Your task to perform on an android device: Open accessibility settings Image 0: 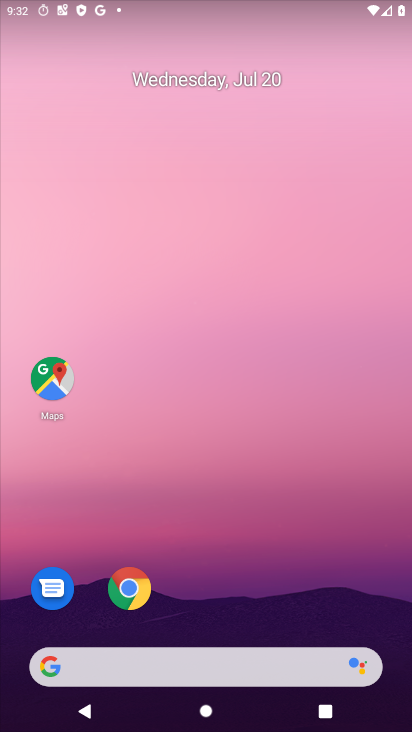
Step 0: drag from (224, 683) to (197, 39)
Your task to perform on an android device: Open accessibility settings Image 1: 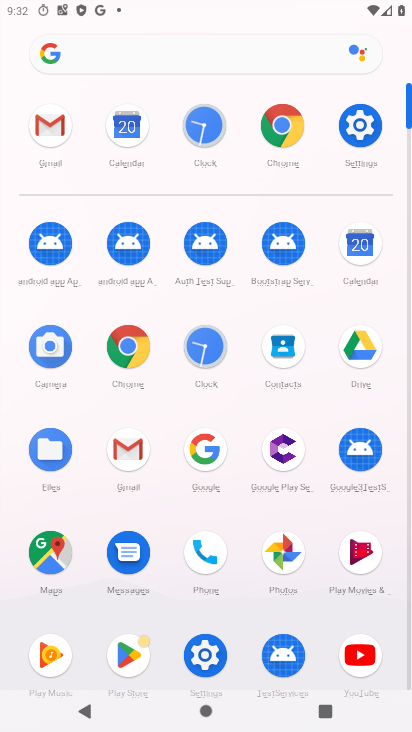
Step 1: click (358, 118)
Your task to perform on an android device: Open accessibility settings Image 2: 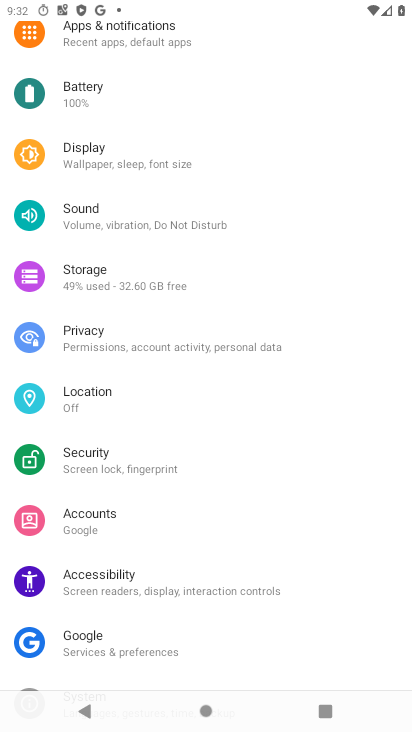
Step 2: click (142, 581)
Your task to perform on an android device: Open accessibility settings Image 3: 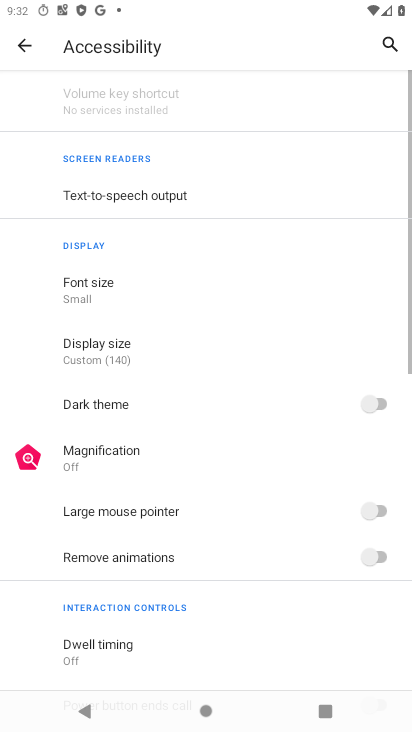
Step 3: task complete